Your task to perform on an android device: Open Chrome and go to the settings page Image 0: 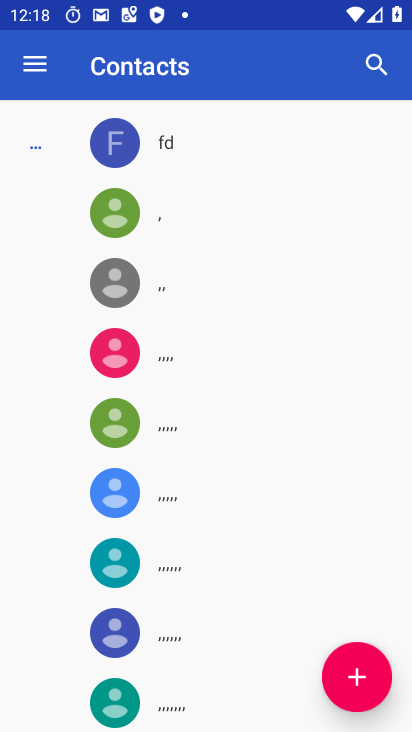
Step 0: press home button
Your task to perform on an android device: Open Chrome and go to the settings page Image 1: 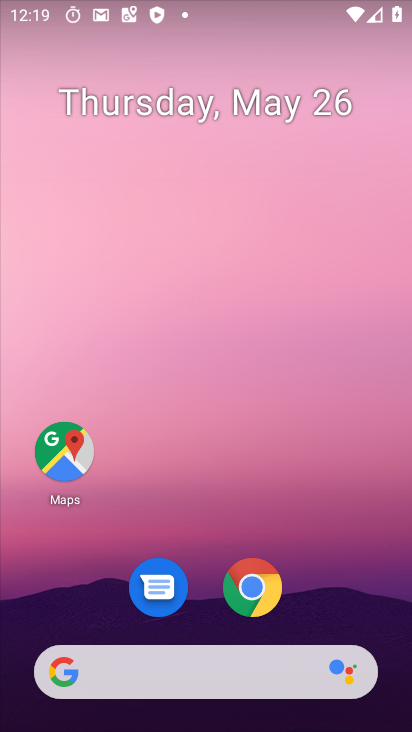
Step 1: drag from (254, 710) to (159, 201)
Your task to perform on an android device: Open Chrome and go to the settings page Image 2: 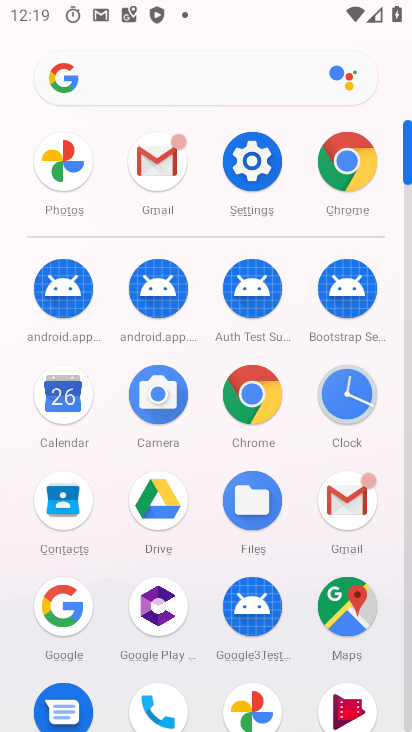
Step 2: click (363, 168)
Your task to perform on an android device: Open Chrome and go to the settings page Image 3: 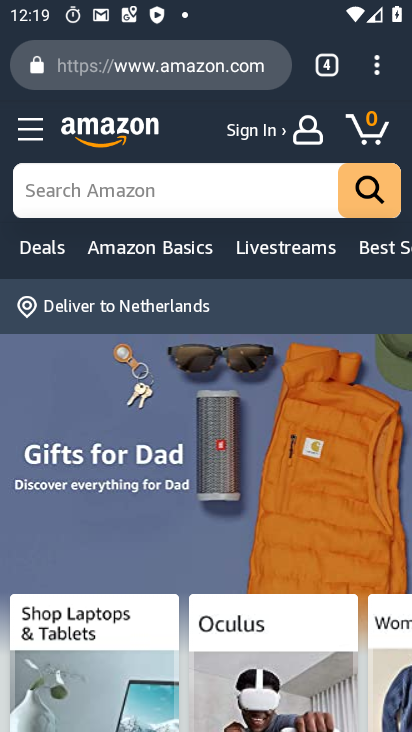
Step 3: click (371, 79)
Your task to perform on an android device: Open Chrome and go to the settings page Image 4: 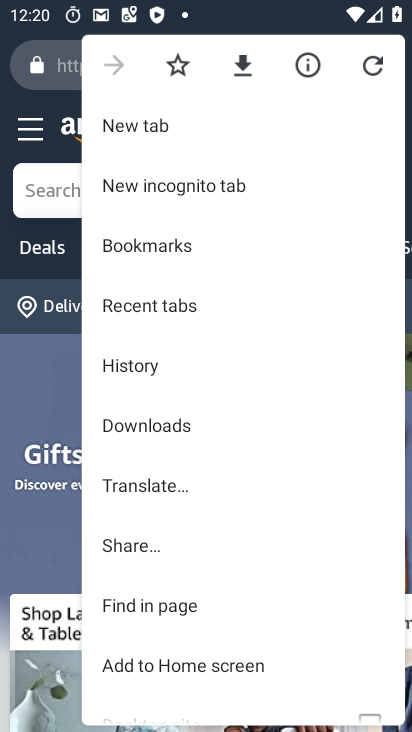
Step 4: drag from (277, 502) to (287, 267)
Your task to perform on an android device: Open Chrome and go to the settings page Image 5: 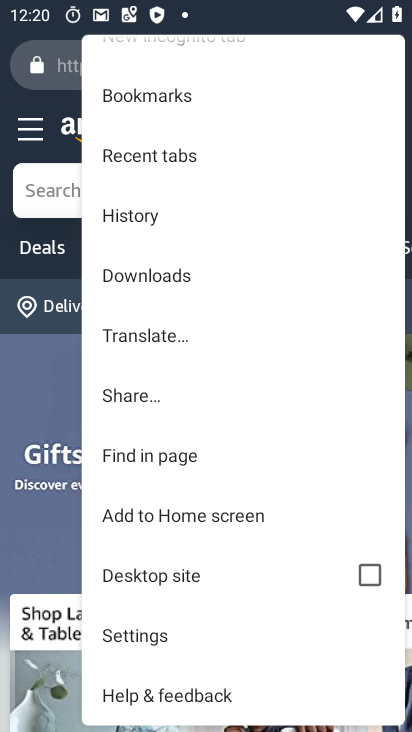
Step 5: click (200, 633)
Your task to perform on an android device: Open Chrome and go to the settings page Image 6: 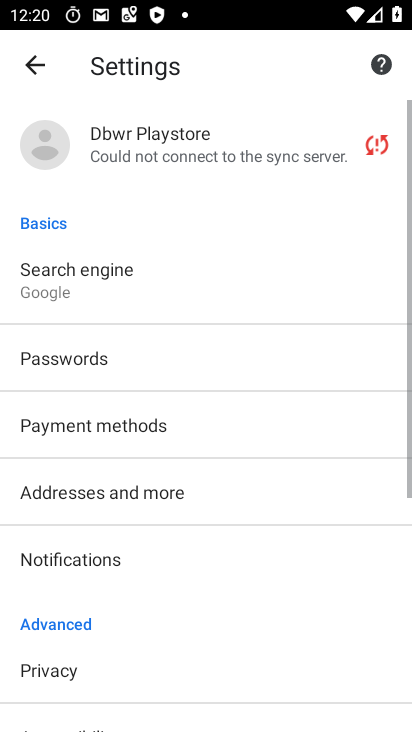
Step 6: task complete